Your task to perform on an android device: change the clock display to show seconds Image 0: 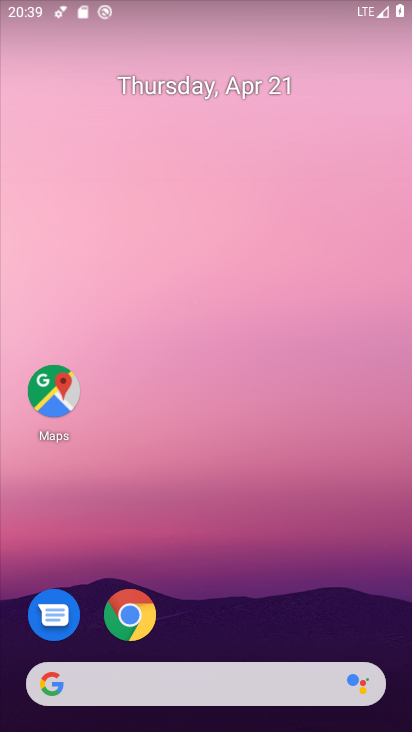
Step 0: drag from (216, 641) to (292, 98)
Your task to perform on an android device: change the clock display to show seconds Image 1: 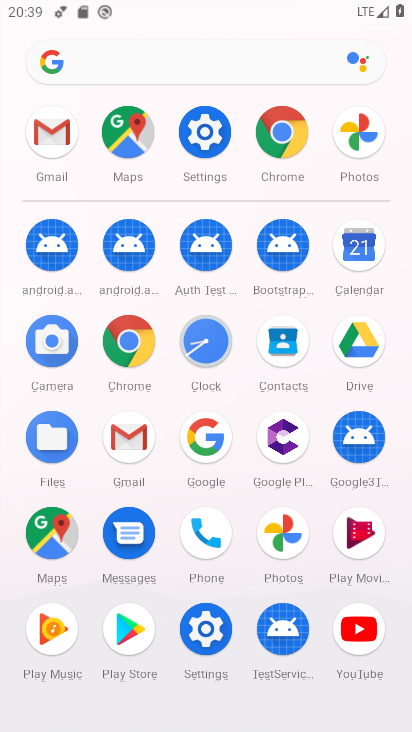
Step 1: click (211, 617)
Your task to perform on an android device: change the clock display to show seconds Image 2: 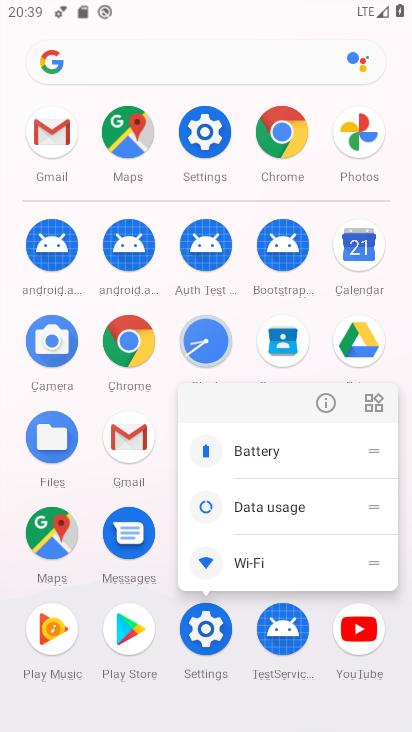
Step 2: click (205, 332)
Your task to perform on an android device: change the clock display to show seconds Image 3: 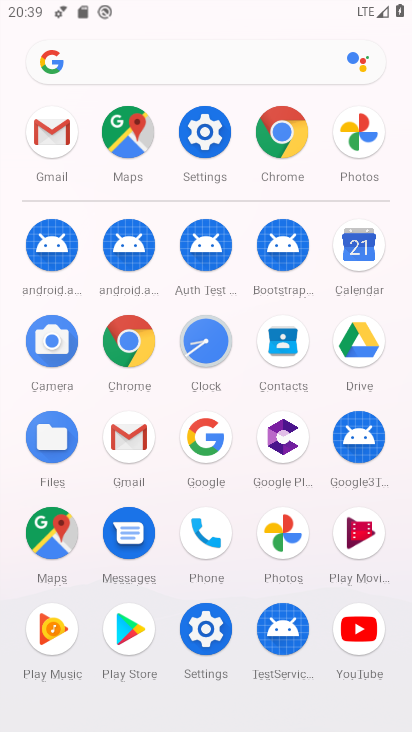
Step 3: click (213, 330)
Your task to perform on an android device: change the clock display to show seconds Image 4: 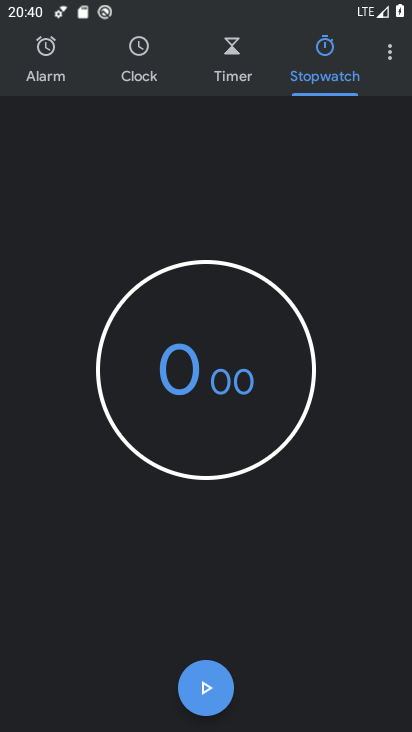
Step 4: click (388, 72)
Your task to perform on an android device: change the clock display to show seconds Image 5: 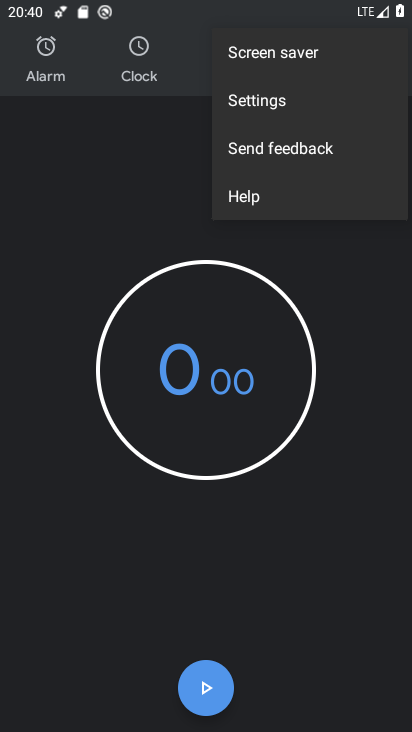
Step 5: click (263, 113)
Your task to perform on an android device: change the clock display to show seconds Image 6: 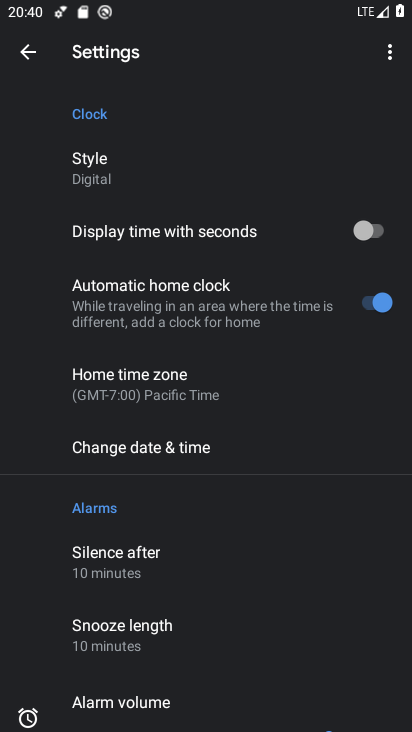
Step 6: click (258, 231)
Your task to perform on an android device: change the clock display to show seconds Image 7: 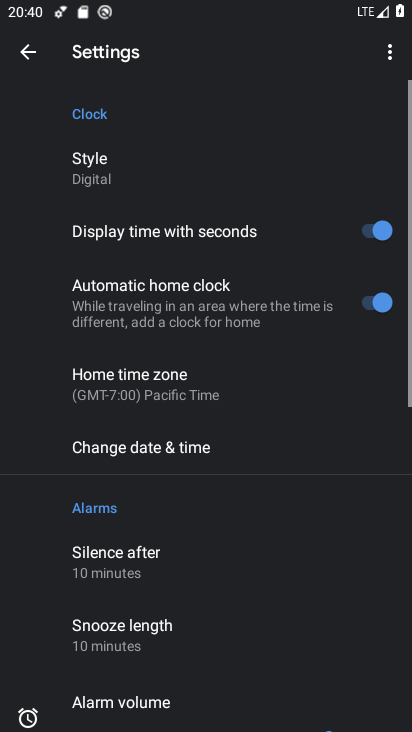
Step 7: task complete